Your task to perform on an android device: change notification settings in the gmail app Image 0: 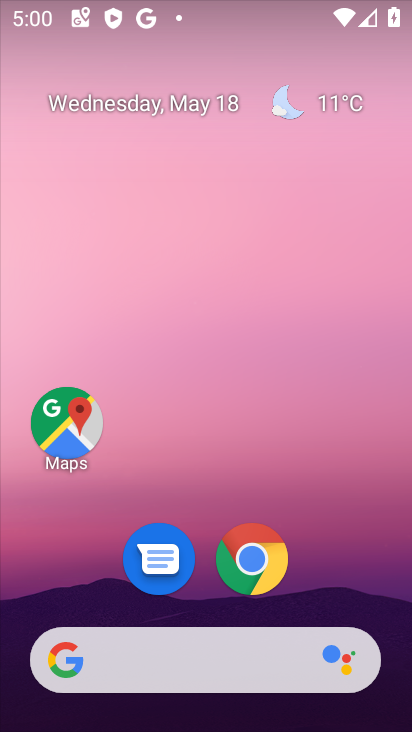
Step 0: drag from (193, 576) to (264, 96)
Your task to perform on an android device: change notification settings in the gmail app Image 1: 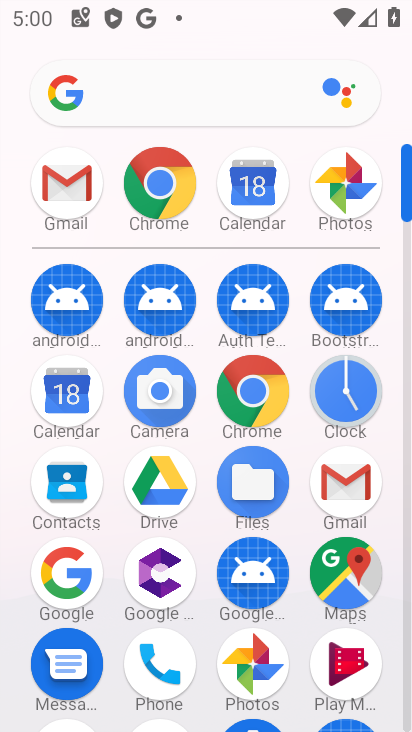
Step 1: click (61, 188)
Your task to perform on an android device: change notification settings in the gmail app Image 2: 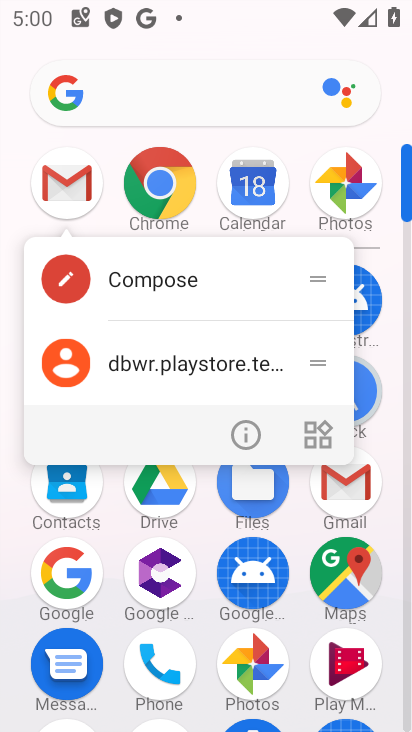
Step 2: click (239, 431)
Your task to perform on an android device: change notification settings in the gmail app Image 3: 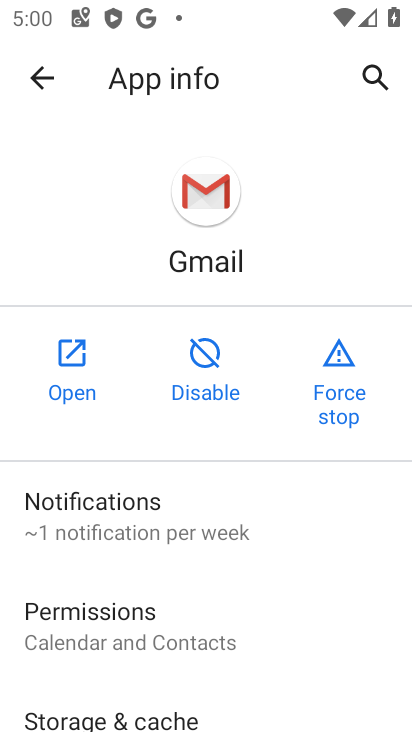
Step 3: click (126, 505)
Your task to perform on an android device: change notification settings in the gmail app Image 4: 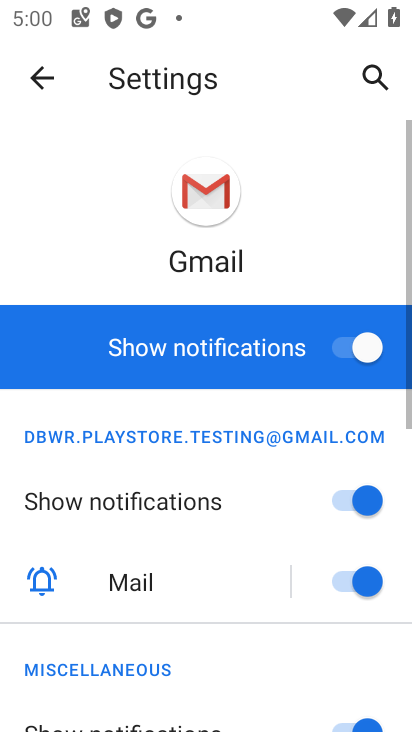
Step 4: drag from (157, 583) to (212, 242)
Your task to perform on an android device: change notification settings in the gmail app Image 5: 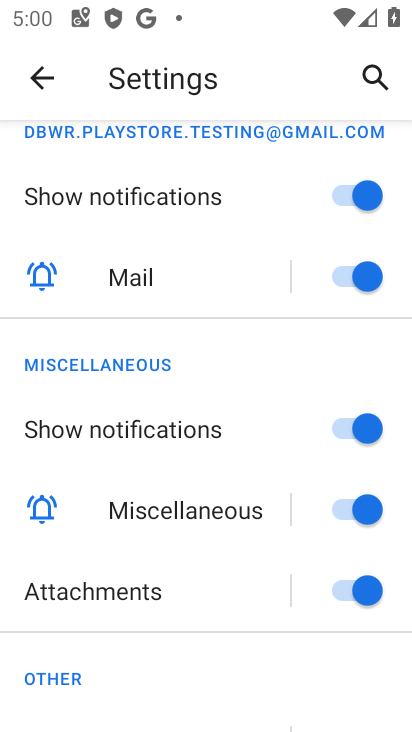
Step 5: click (365, 201)
Your task to perform on an android device: change notification settings in the gmail app Image 6: 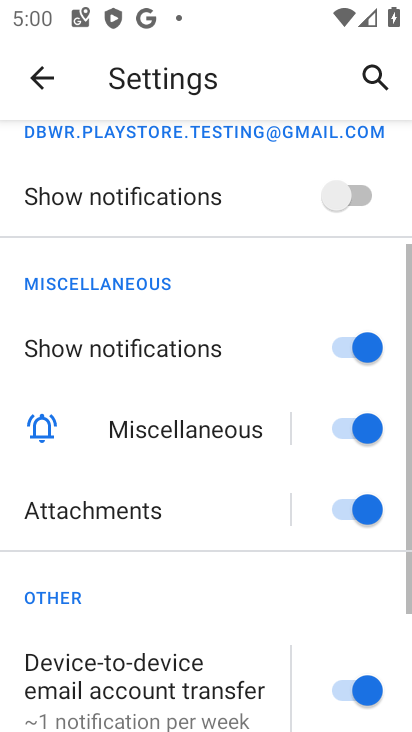
Step 6: task complete